Your task to perform on an android device: allow cookies in the chrome app Image 0: 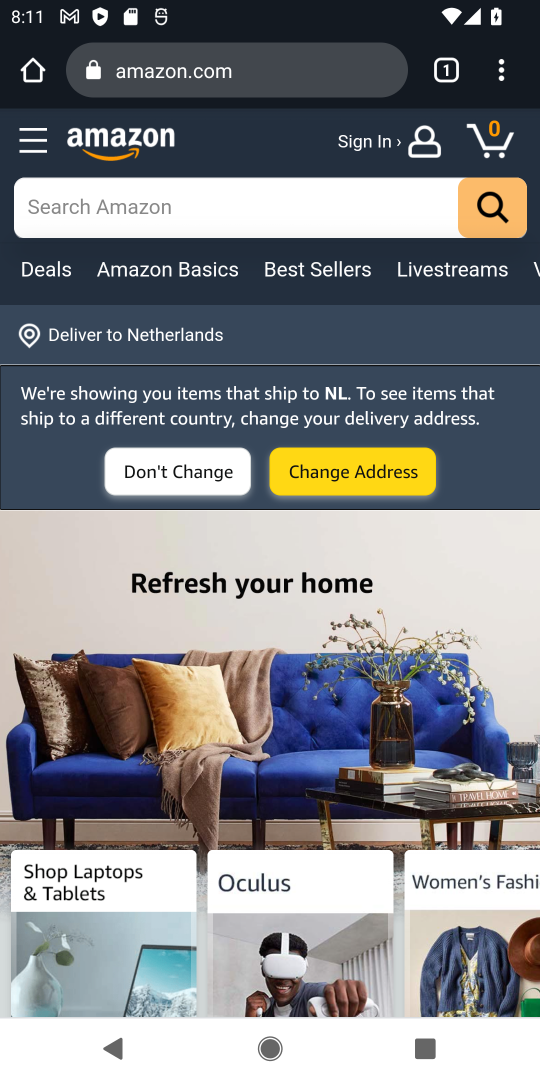
Step 0: press home button
Your task to perform on an android device: allow cookies in the chrome app Image 1: 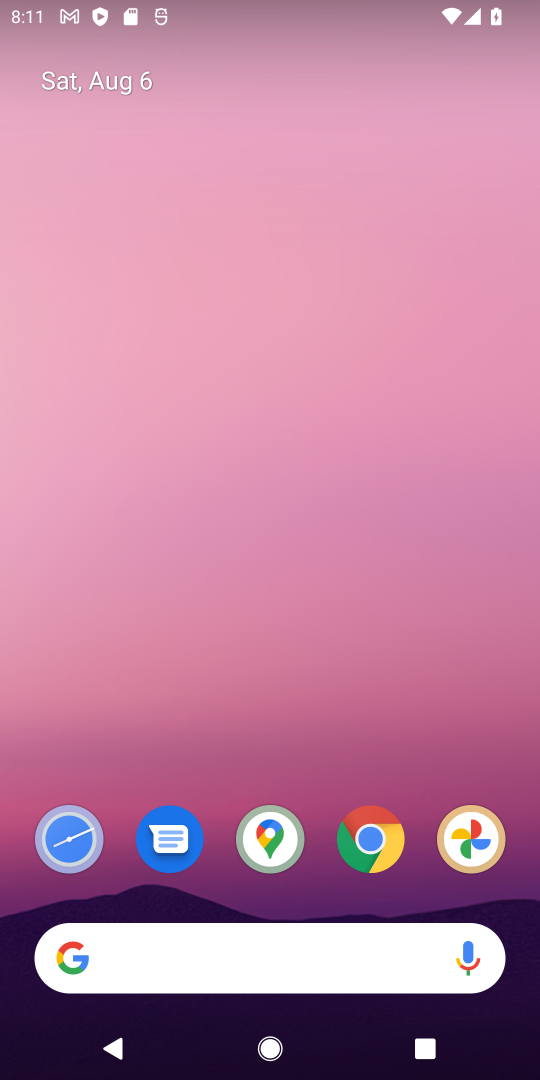
Step 1: click (381, 834)
Your task to perform on an android device: allow cookies in the chrome app Image 2: 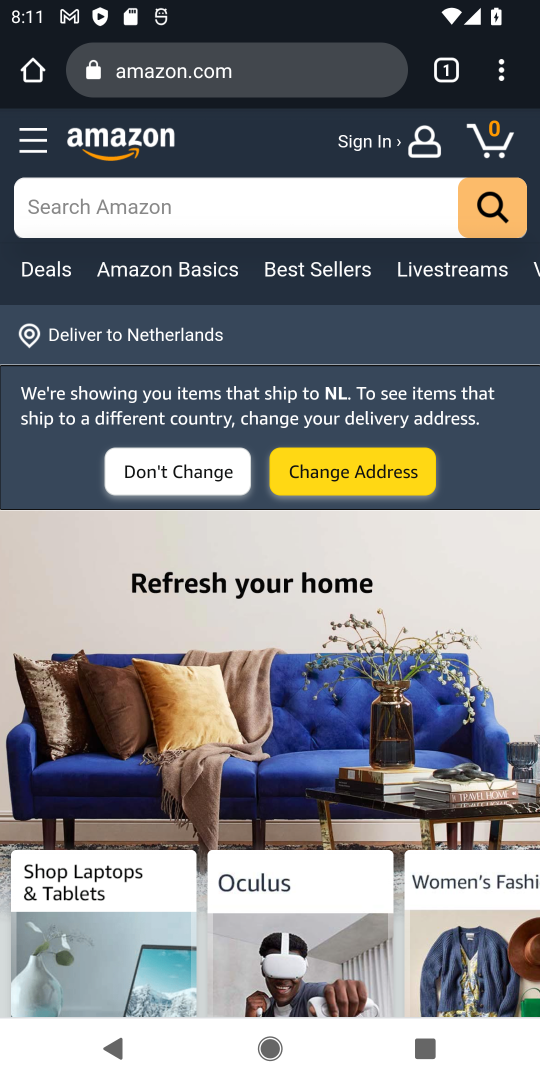
Step 2: click (492, 70)
Your task to perform on an android device: allow cookies in the chrome app Image 3: 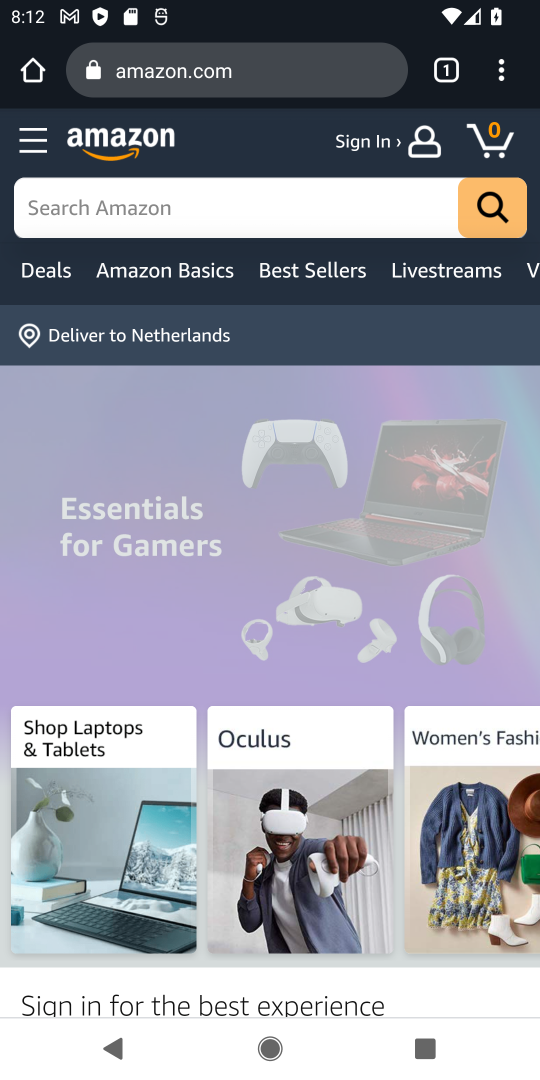
Step 3: click (499, 85)
Your task to perform on an android device: allow cookies in the chrome app Image 4: 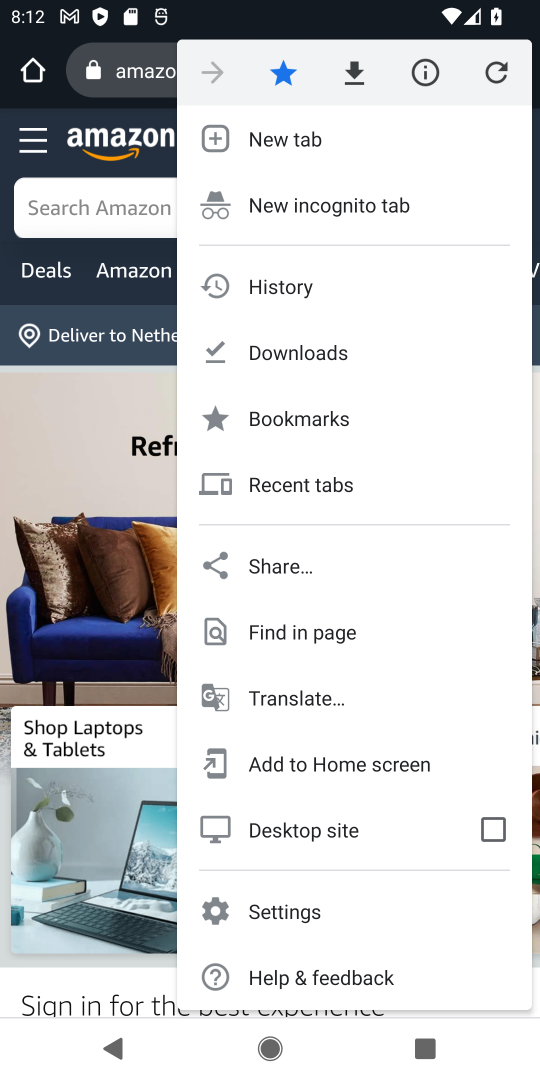
Step 4: click (312, 900)
Your task to perform on an android device: allow cookies in the chrome app Image 5: 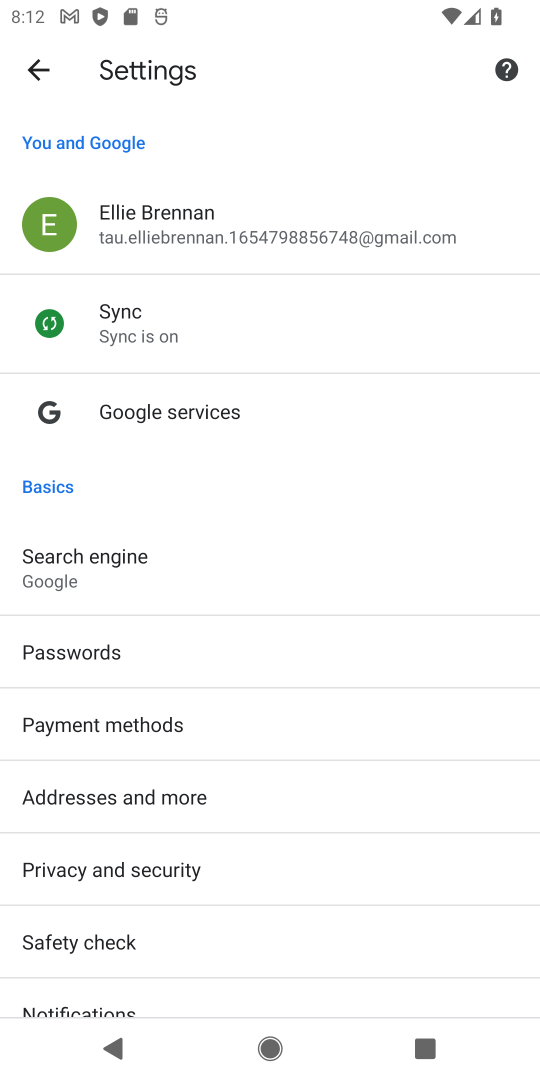
Step 5: drag from (312, 935) to (343, 276)
Your task to perform on an android device: allow cookies in the chrome app Image 6: 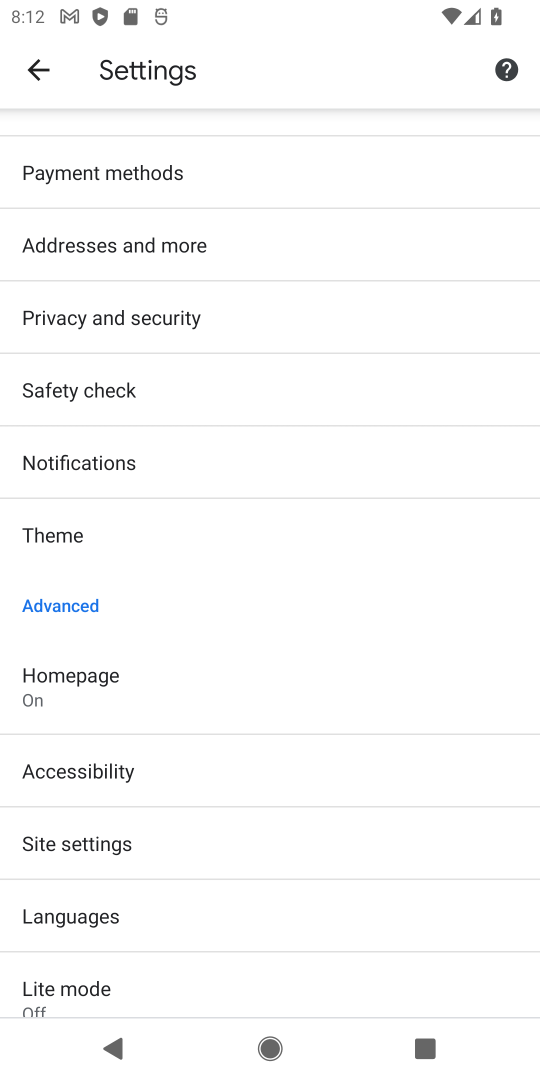
Step 6: click (91, 843)
Your task to perform on an android device: allow cookies in the chrome app Image 7: 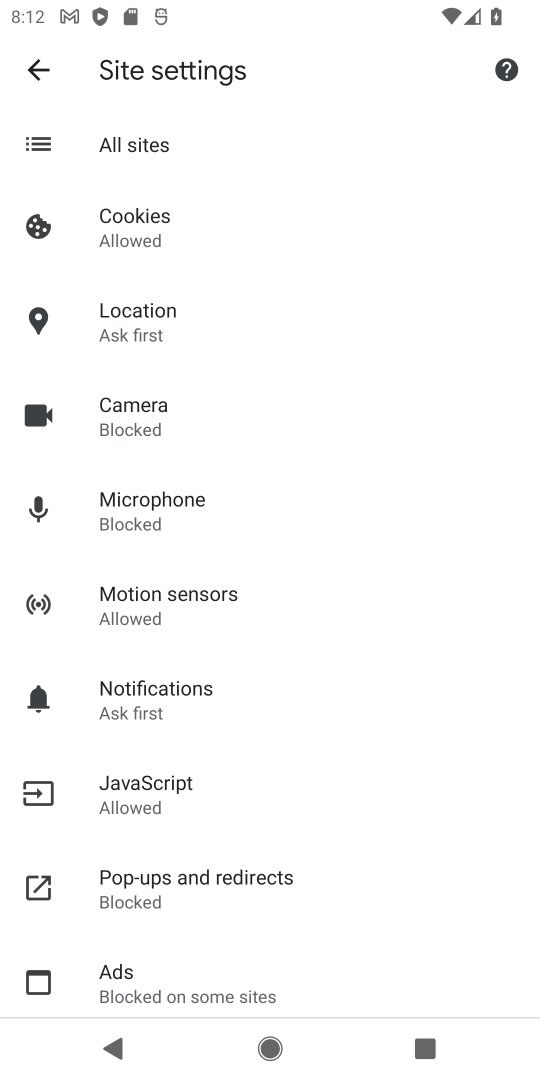
Step 7: click (196, 237)
Your task to perform on an android device: allow cookies in the chrome app Image 8: 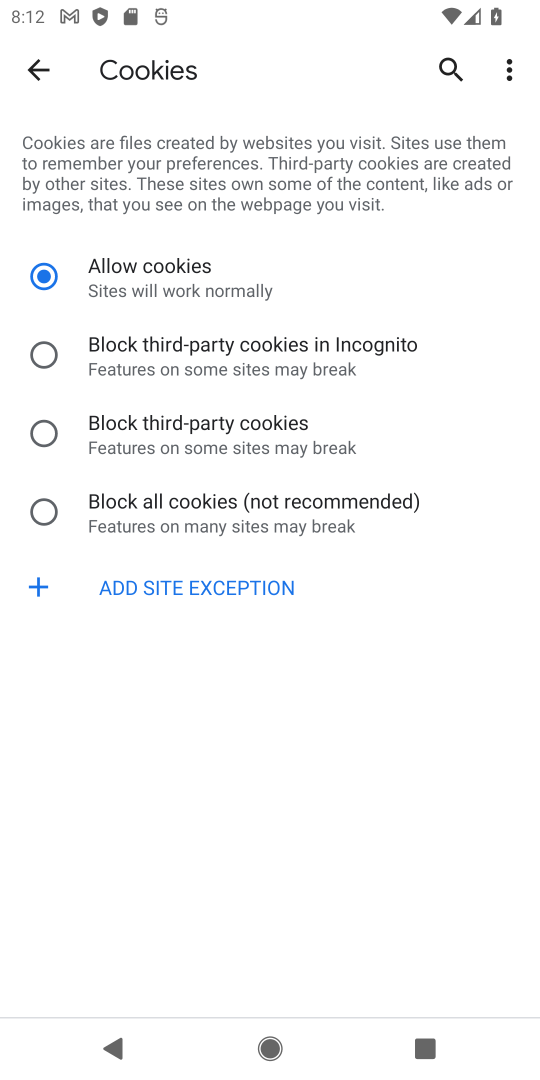
Step 8: task complete